Your task to perform on an android device: open app "eBay: The shopping marketplace" Image 0: 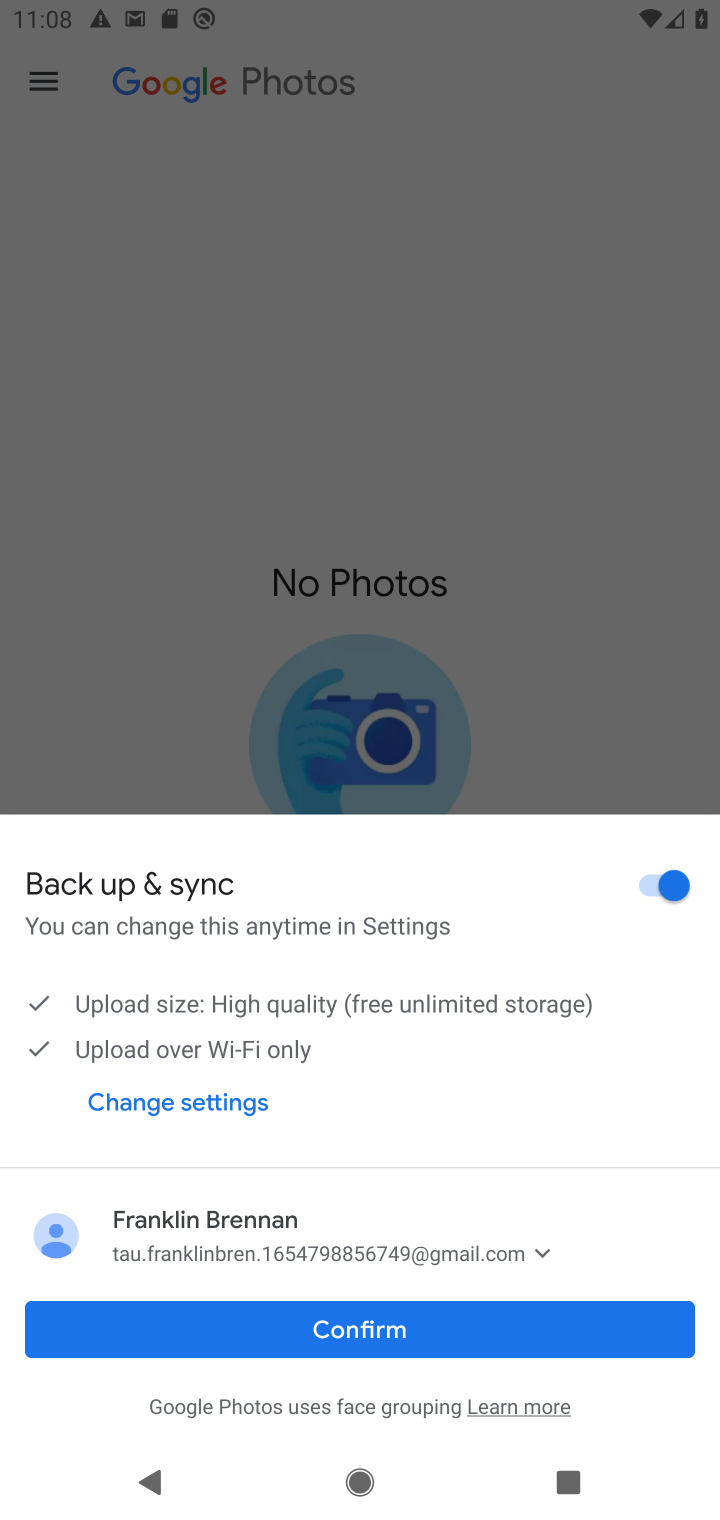
Step 0: press home button
Your task to perform on an android device: open app "eBay: The shopping marketplace" Image 1: 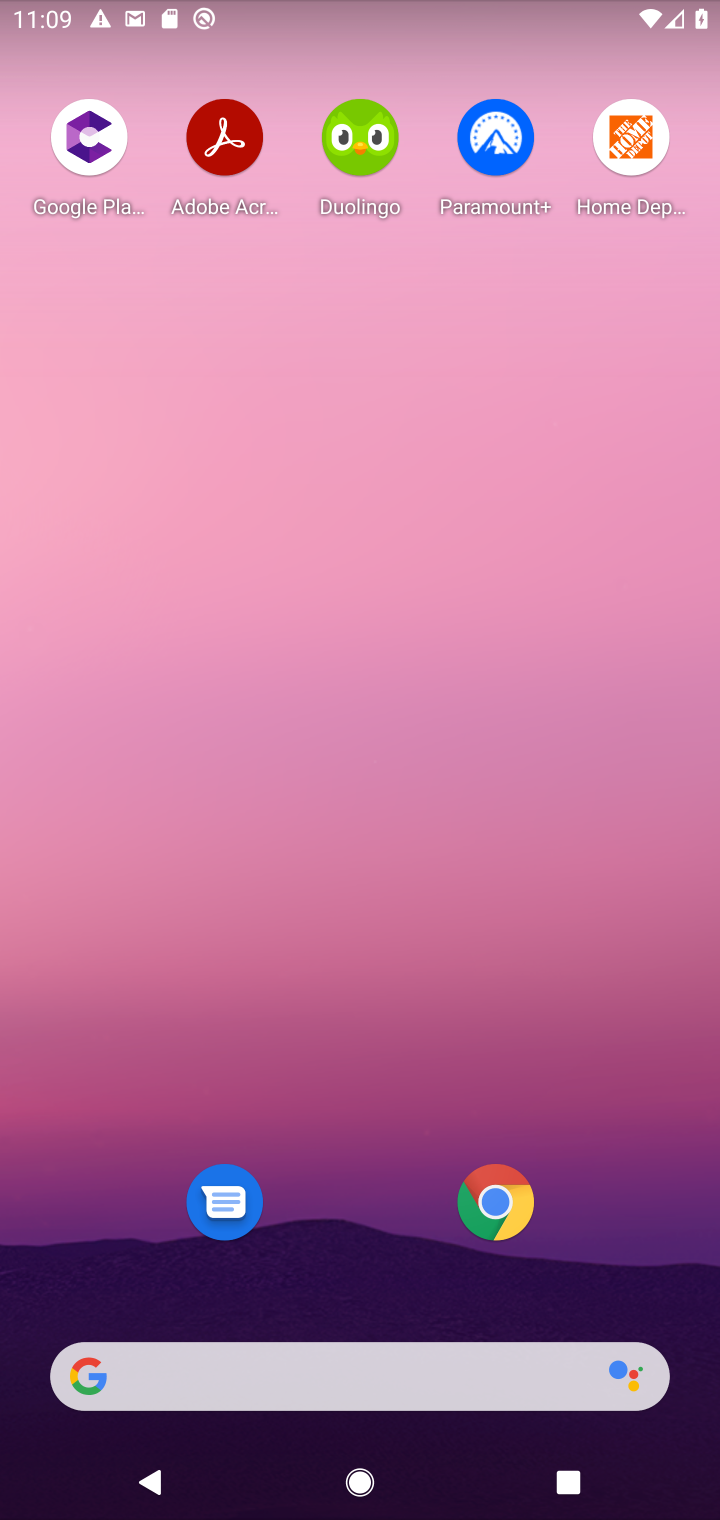
Step 1: drag from (374, 1289) to (293, 66)
Your task to perform on an android device: open app "eBay: The shopping marketplace" Image 2: 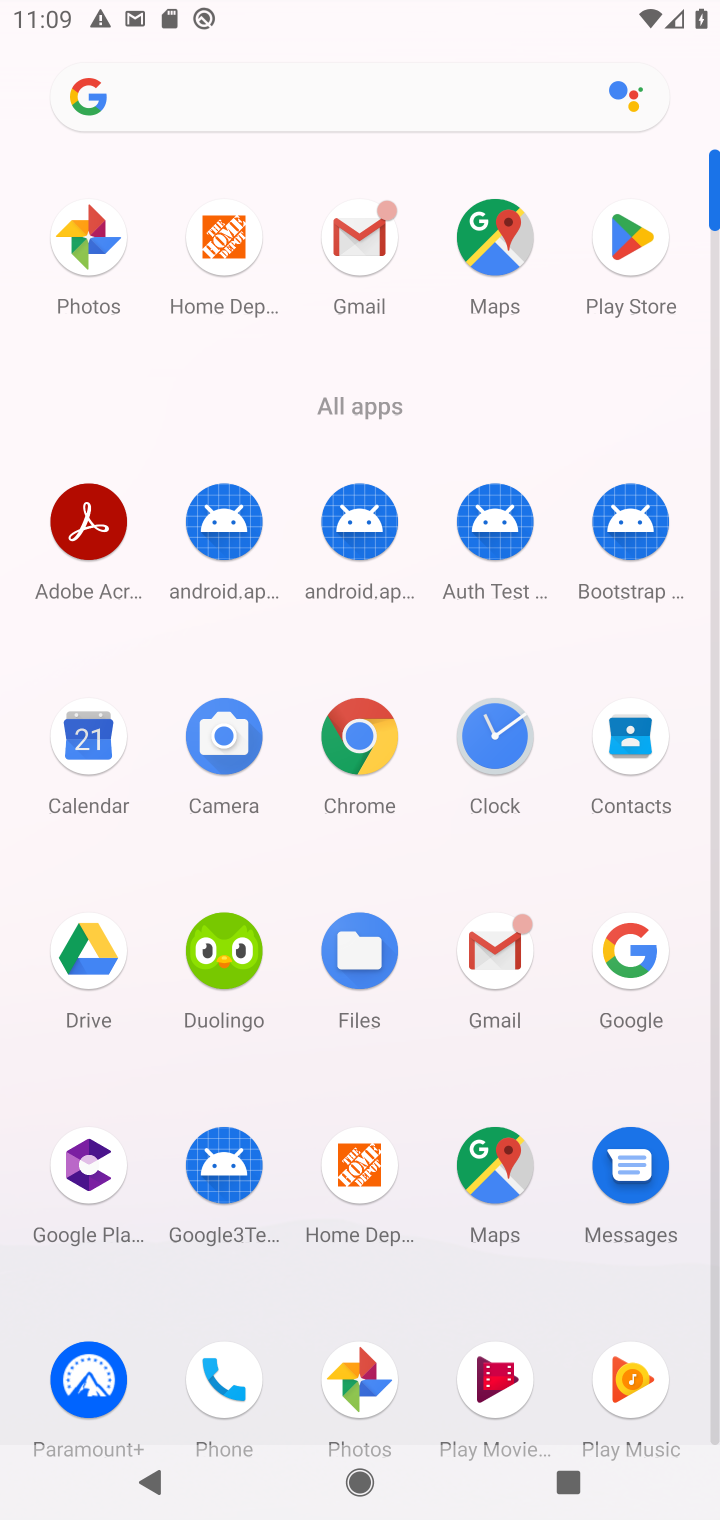
Step 2: click (625, 236)
Your task to perform on an android device: open app "eBay: The shopping marketplace" Image 3: 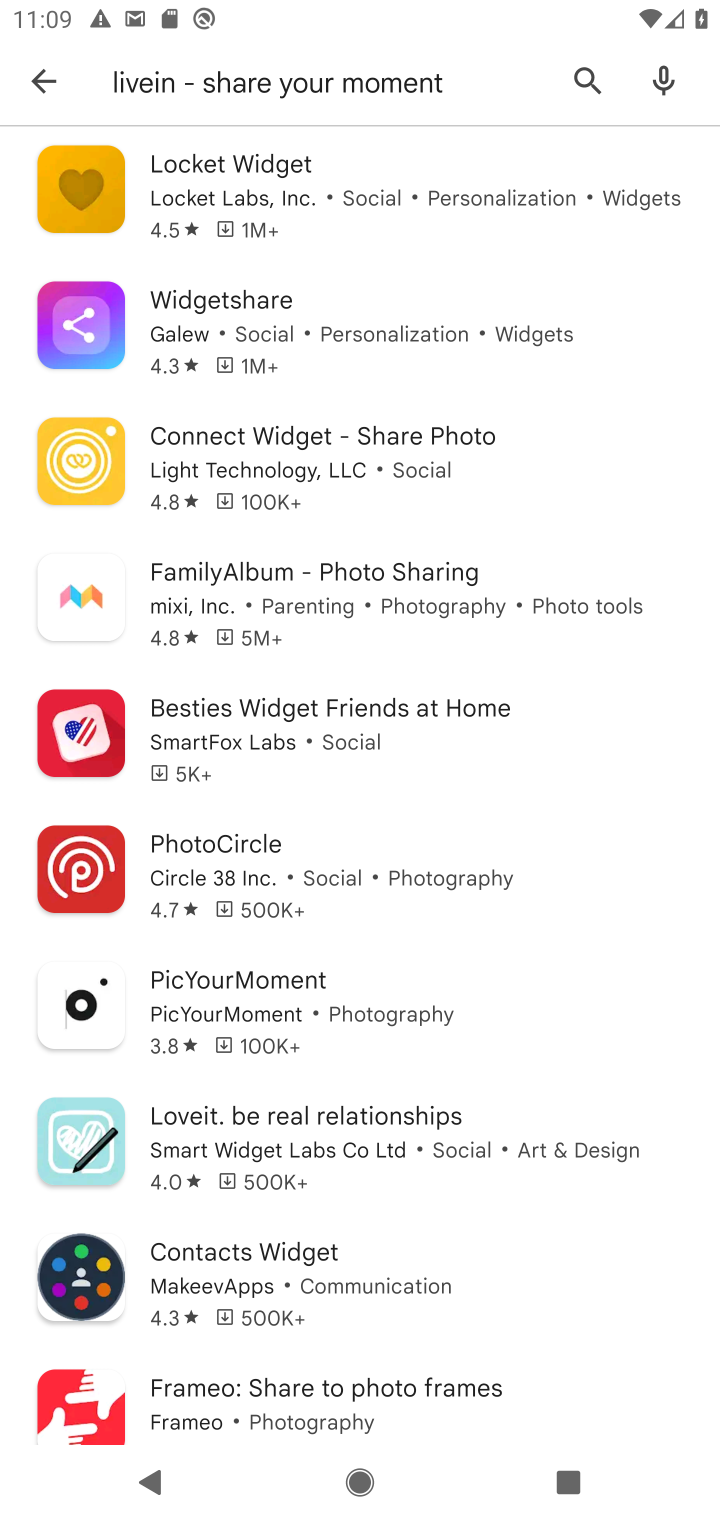
Step 3: click (579, 73)
Your task to perform on an android device: open app "eBay: The shopping marketplace" Image 4: 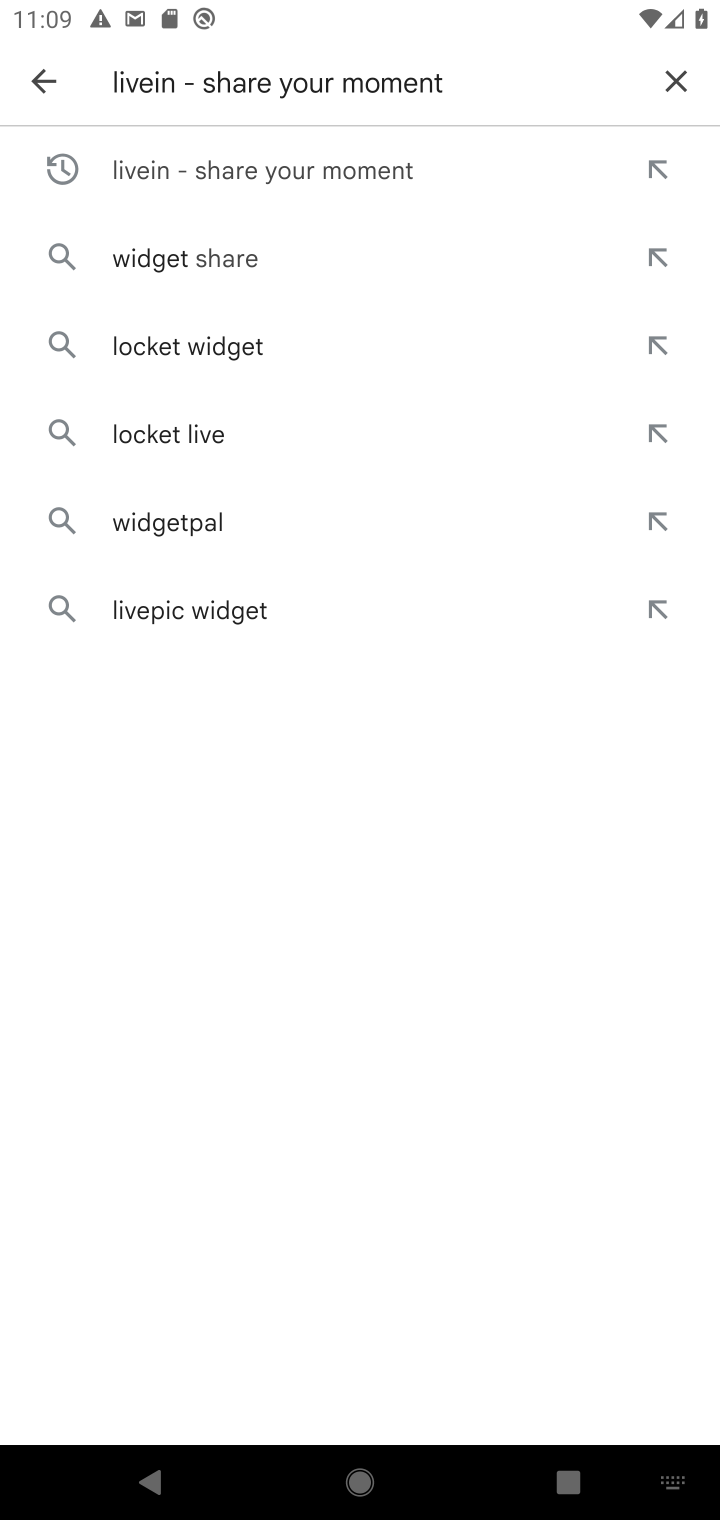
Step 4: click (666, 79)
Your task to perform on an android device: open app "eBay: The shopping marketplace" Image 5: 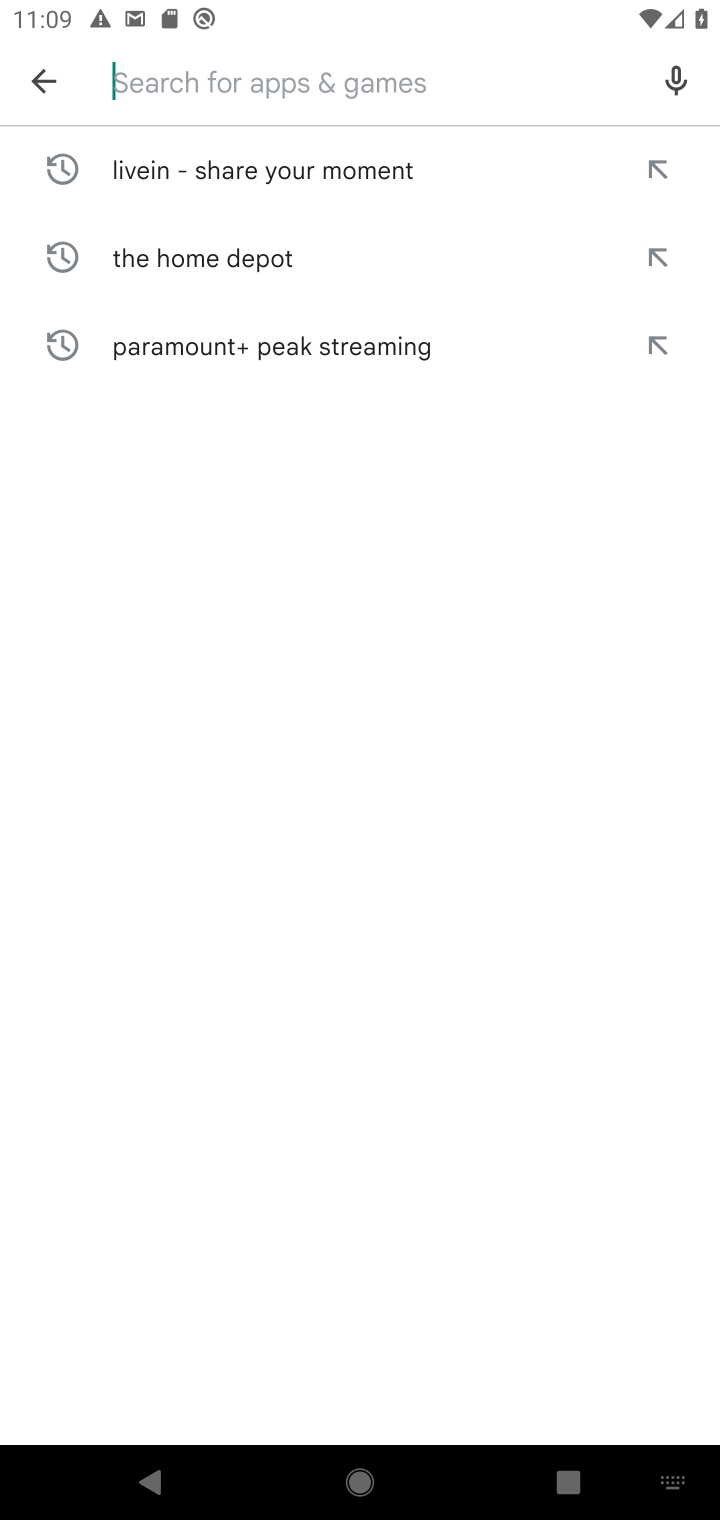
Step 5: type "eBay: The shopping marketplace"
Your task to perform on an android device: open app "eBay: The shopping marketplace" Image 6: 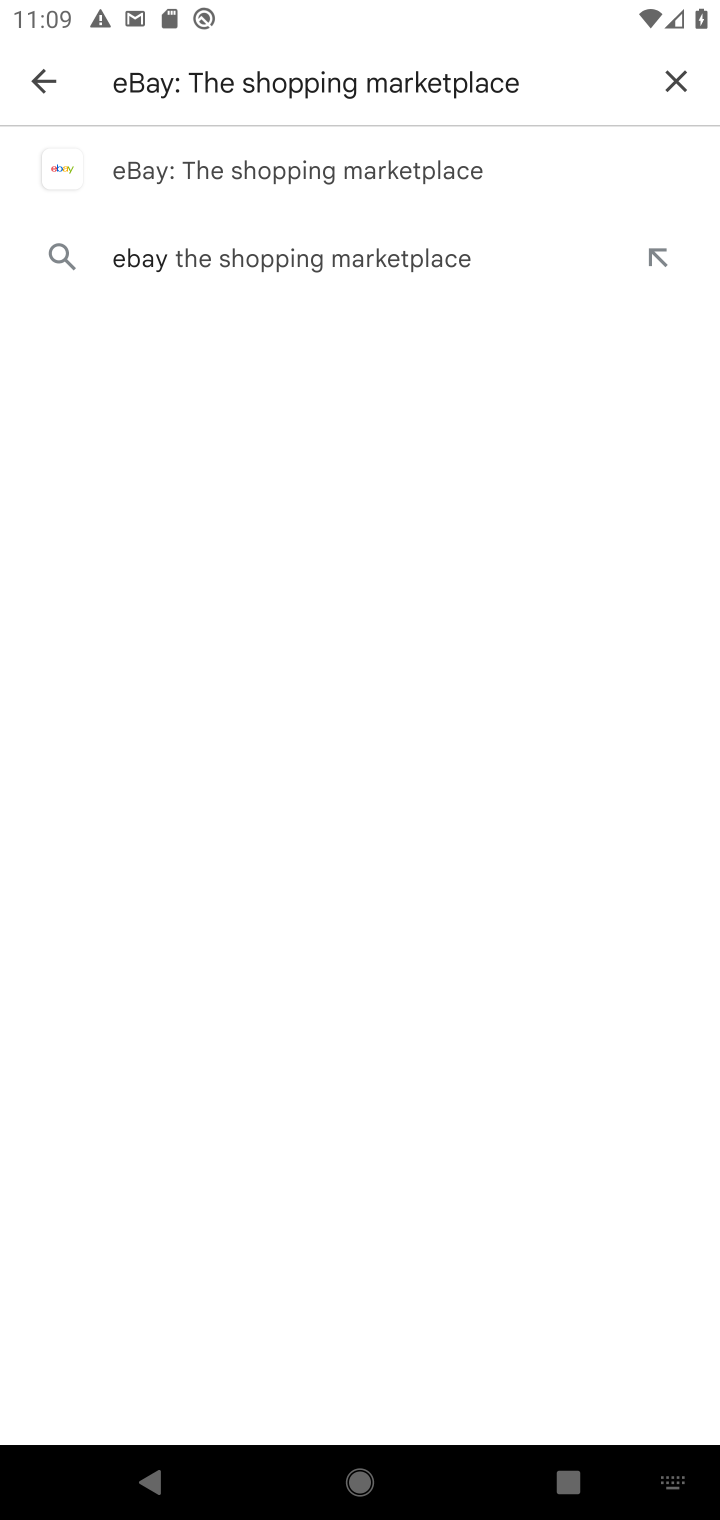
Step 6: click (440, 160)
Your task to perform on an android device: open app "eBay: The shopping marketplace" Image 7: 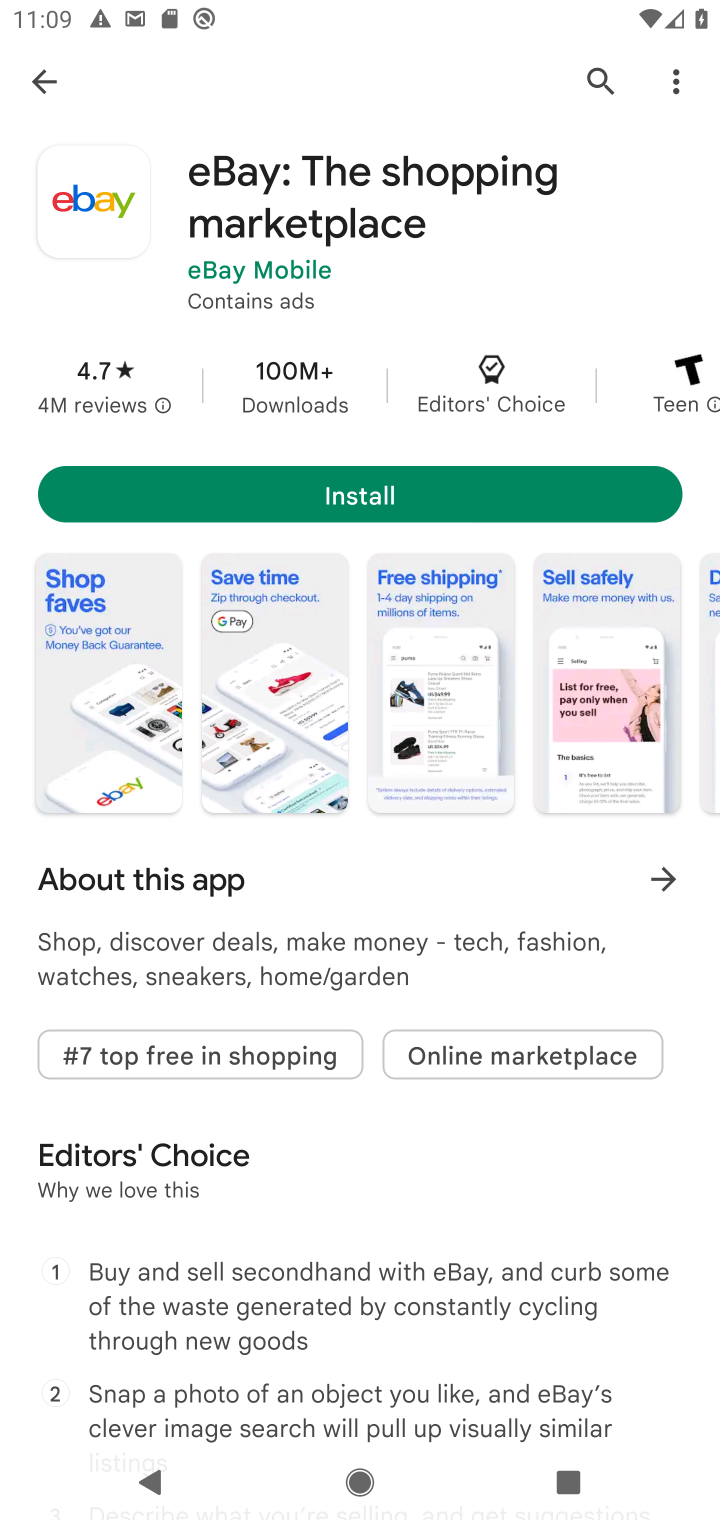
Step 7: task complete